Your task to perform on an android device: toggle priority inbox in the gmail app Image 0: 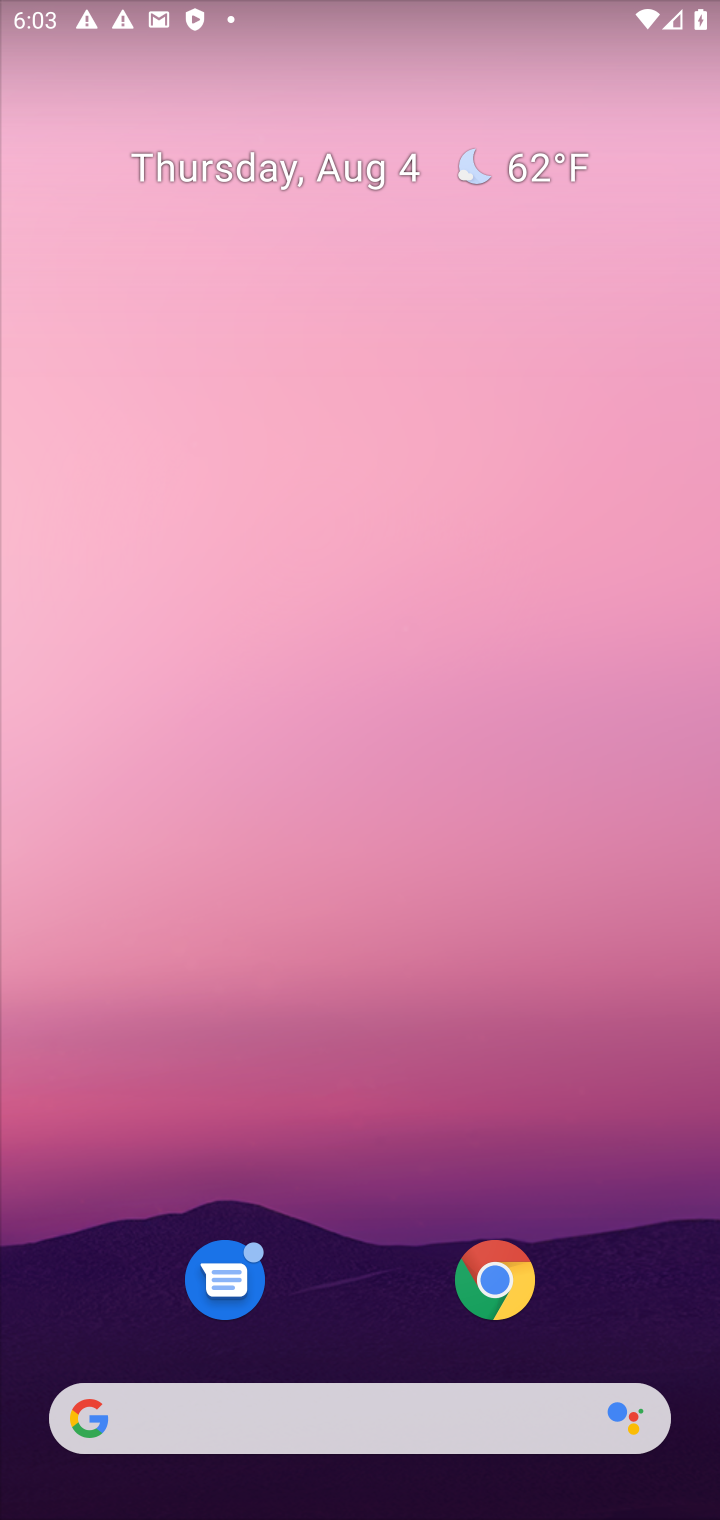
Step 0: drag from (332, 831) to (314, 126)
Your task to perform on an android device: toggle priority inbox in the gmail app Image 1: 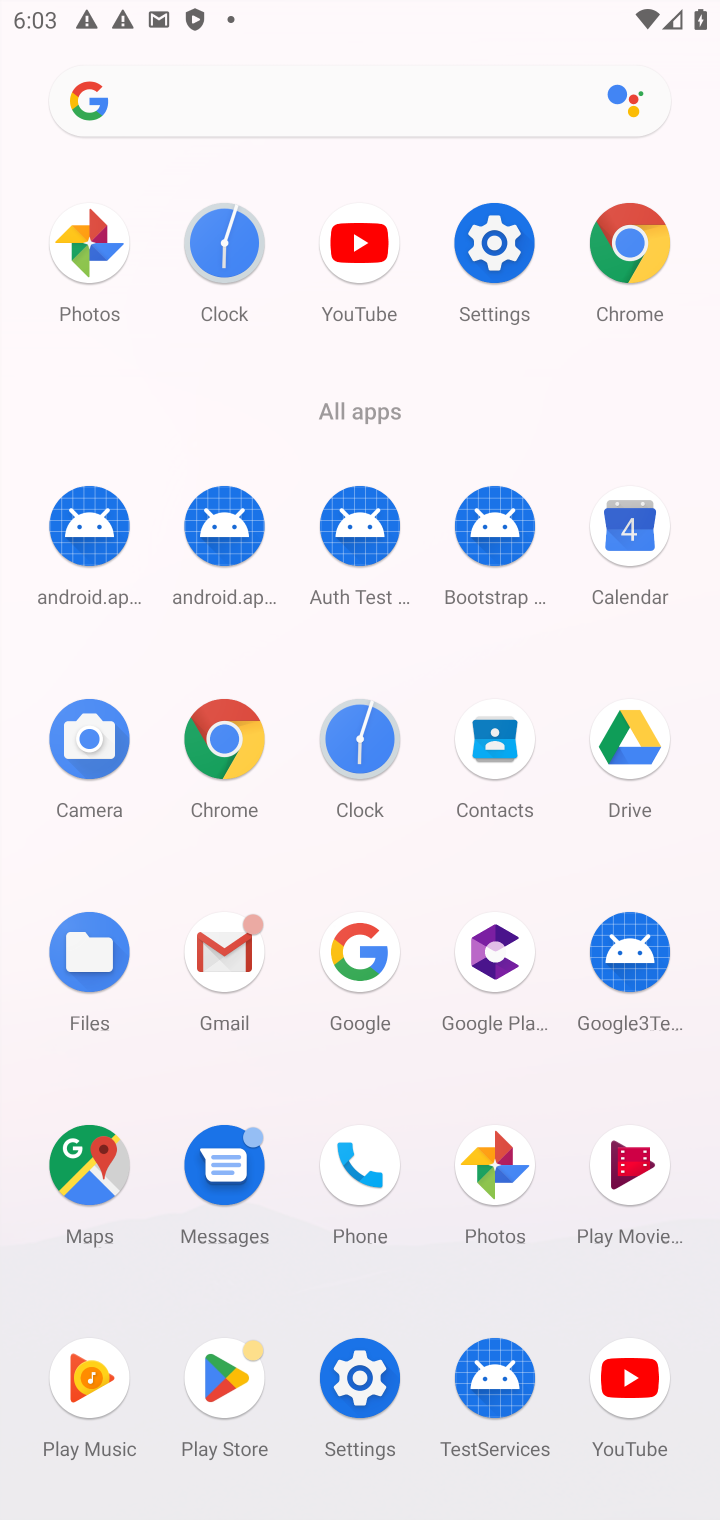
Step 1: click (235, 961)
Your task to perform on an android device: toggle priority inbox in the gmail app Image 2: 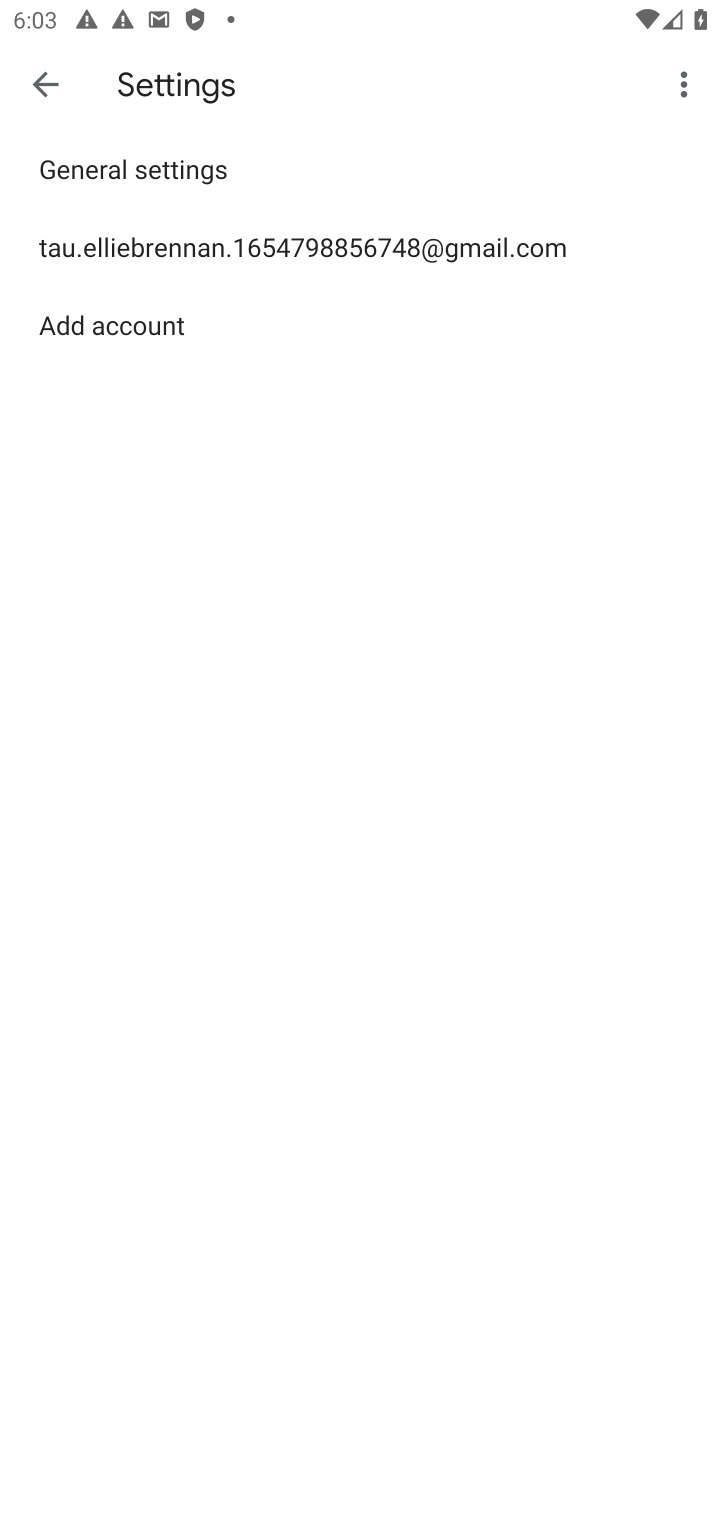
Step 2: click (326, 239)
Your task to perform on an android device: toggle priority inbox in the gmail app Image 3: 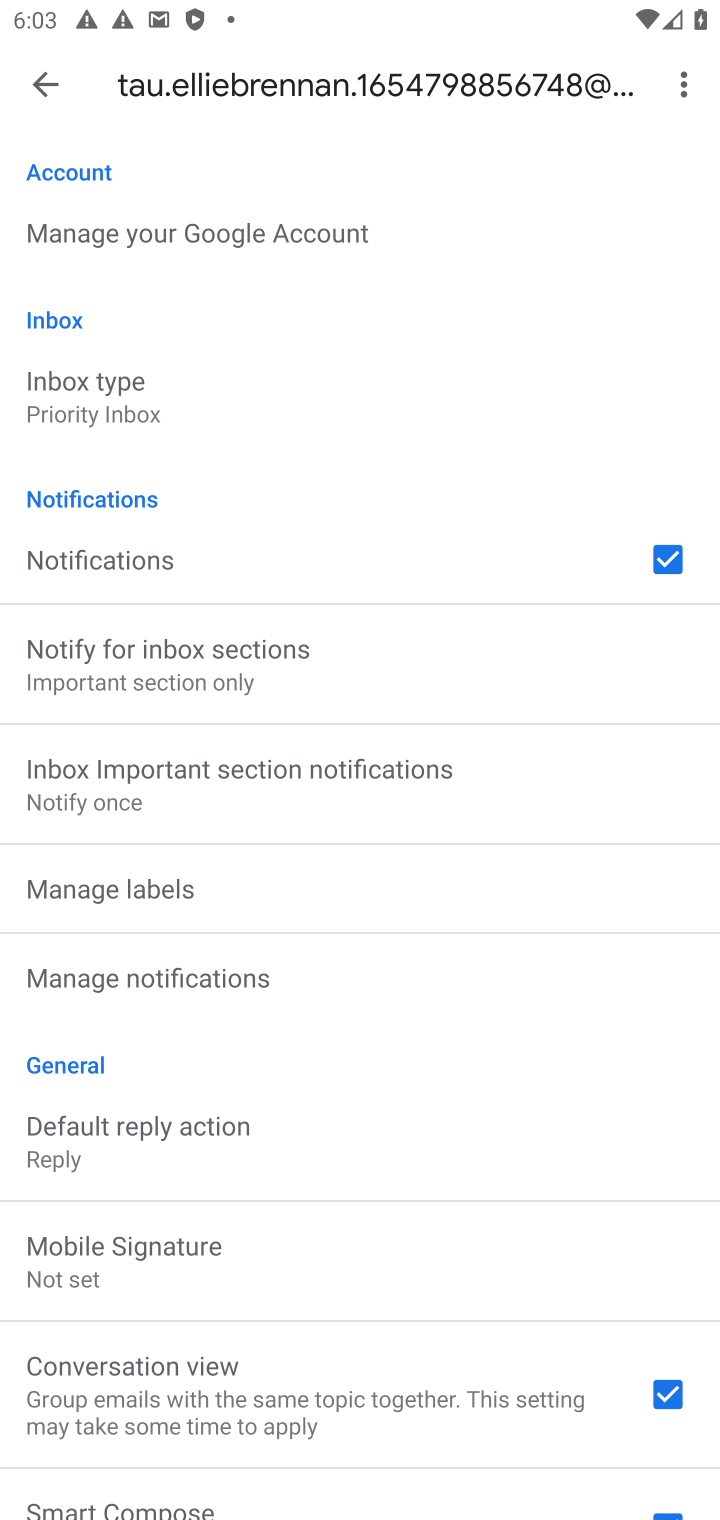
Step 3: click (120, 388)
Your task to perform on an android device: toggle priority inbox in the gmail app Image 4: 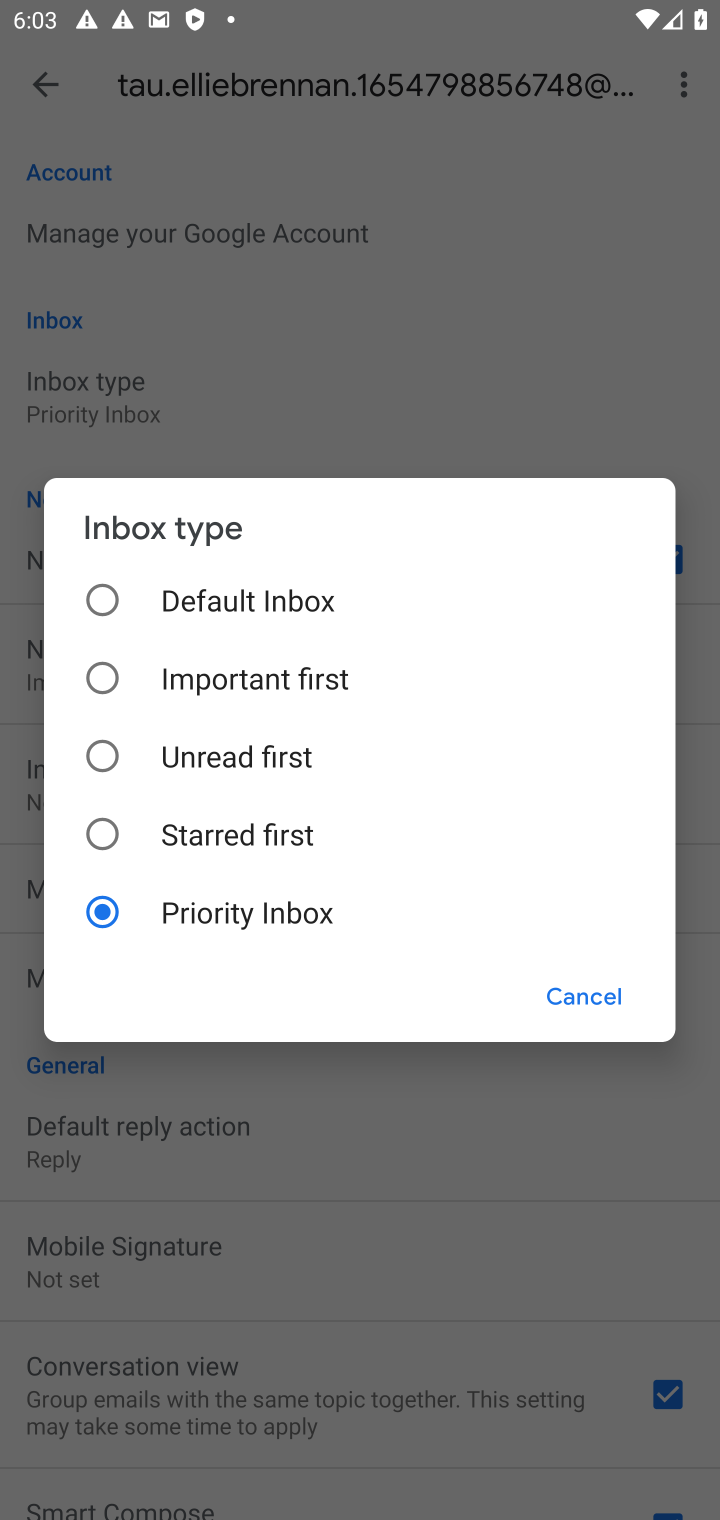
Step 4: click (113, 609)
Your task to perform on an android device: toggle priority inbox in the gmail app Image 5: 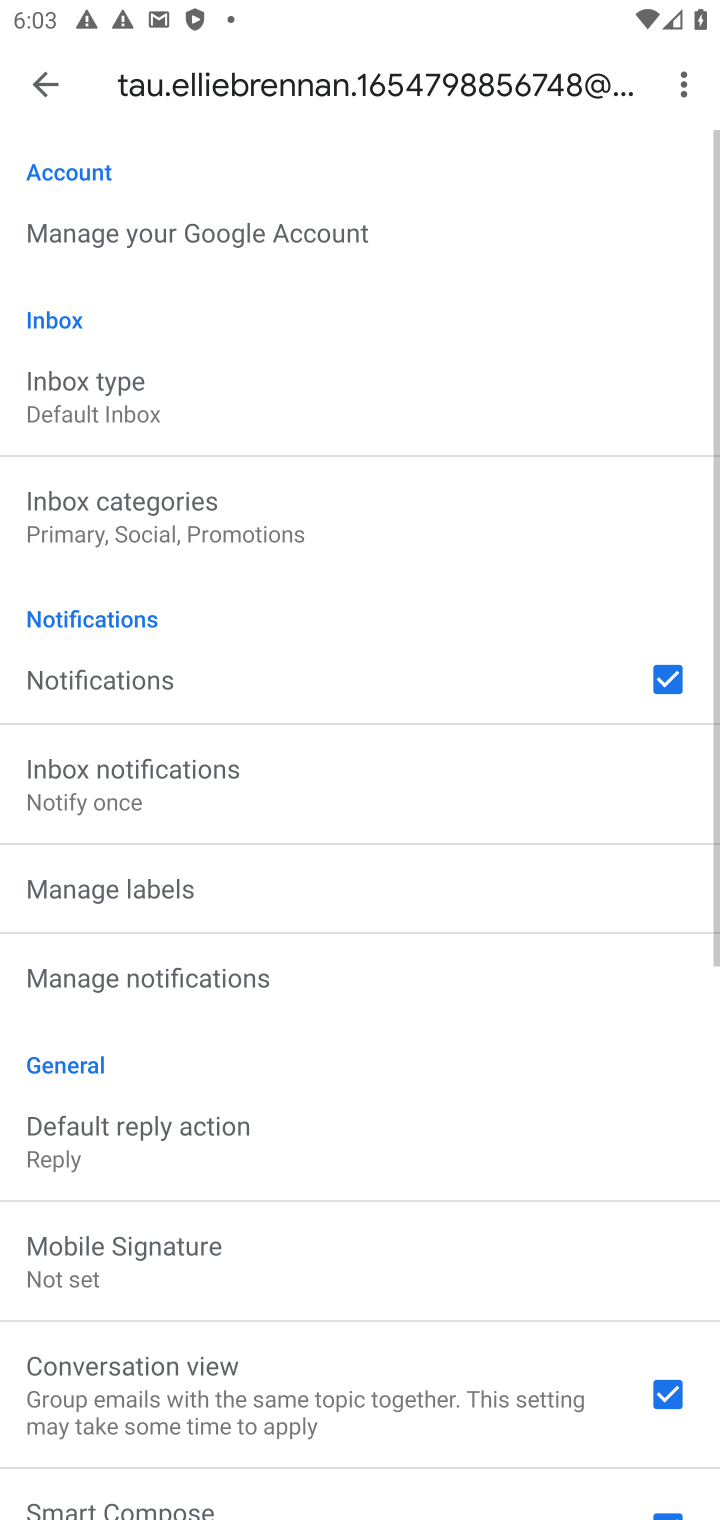
Step 5: task complete